Your task to perform on an android device: set the stopwatch Image 0: 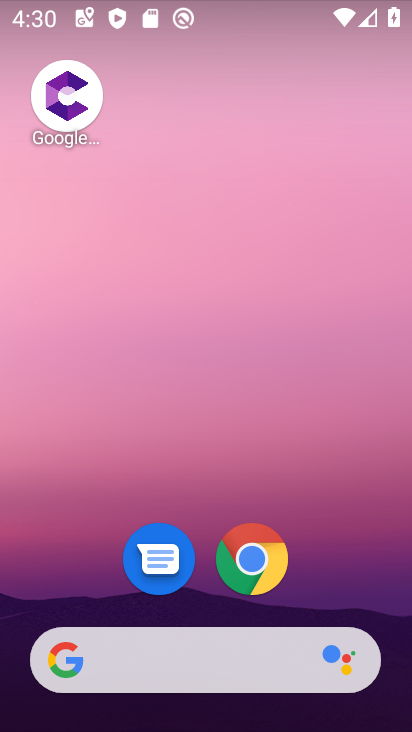
Step 0: drag from (334, 453) to (234, 41)
Your task to perform on an android device: set the stopwatch Image 1: 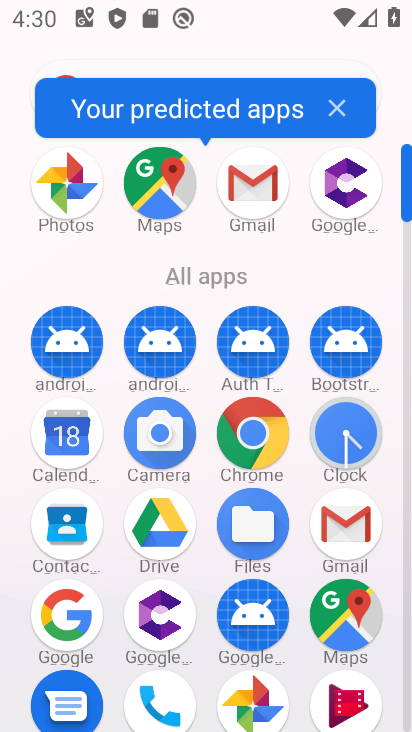
Step 1: click (351, 431)
Your task to perform on an android device: set the stopwatch Image 2: 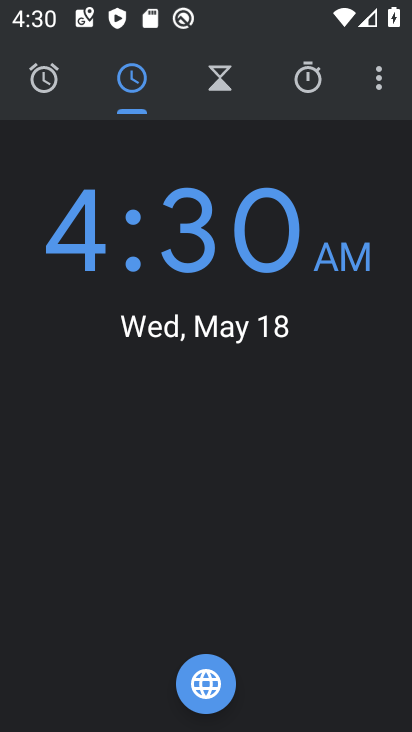
Step 2: click (327, 86)
Your task to perform on an android device: set the stopwatch Image 3: 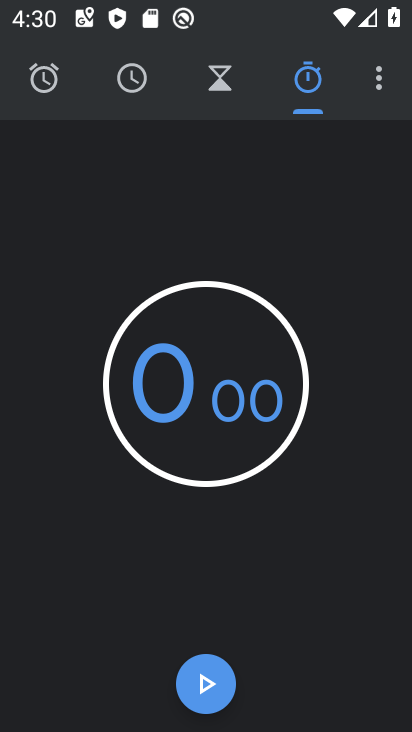
Step 3: click (205, 682)
Your task to perform on an android device: set the stopwatch Image 4: 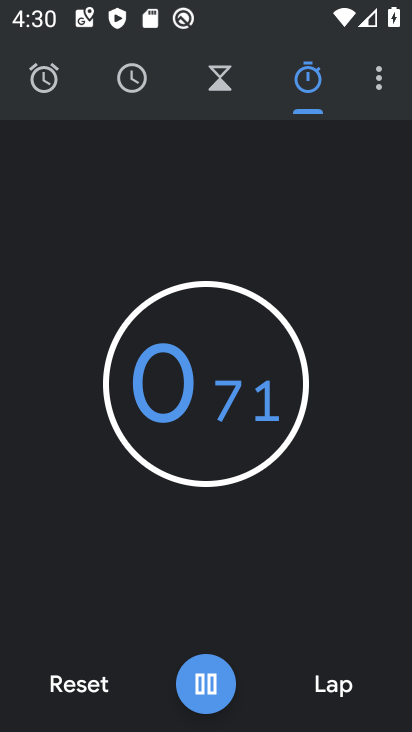
Step 4: task complete